Your task to perform on an android device: open the mobile data screen to see how much data has been used Image 0: 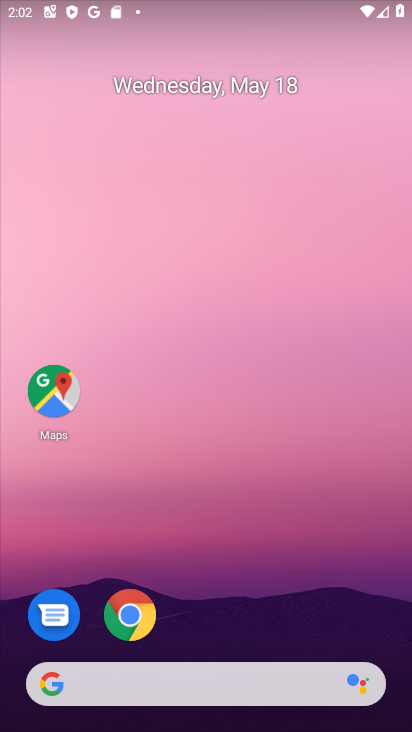
Step 0: drag from (266, 640) to (194, 212)
Your task to perform on an android device: open the mobile data screen to see how much data has been used Image 1: 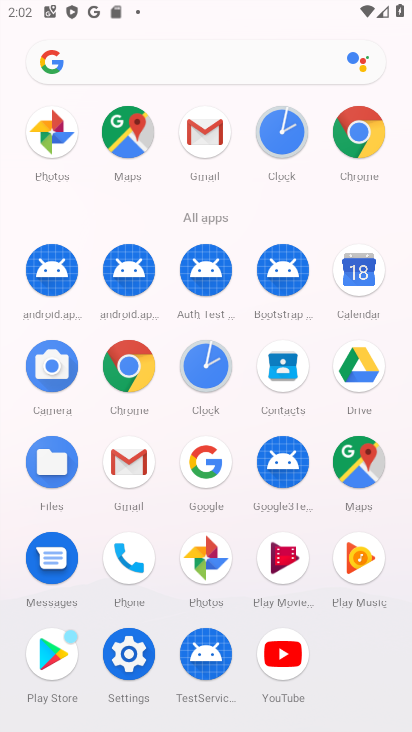
Step 1: click (127, 644)
Your task to perform on an android device: open the mobile data screen to see how much data has been used Image 2: 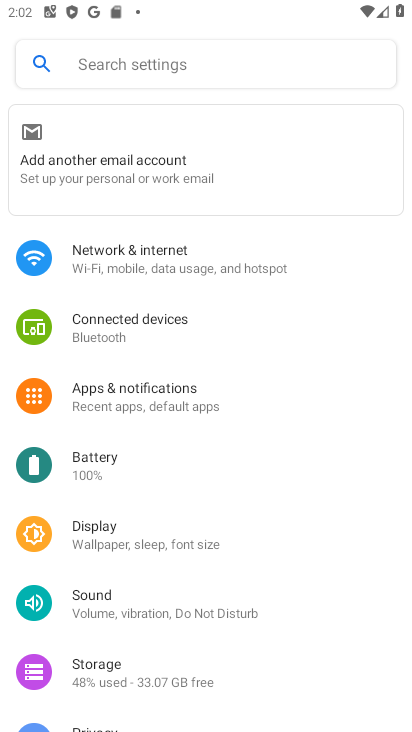
Step 2: click (303, 264)
Your task to perform on an android device: open the mobile data screen to see how much data has been used Image 3: 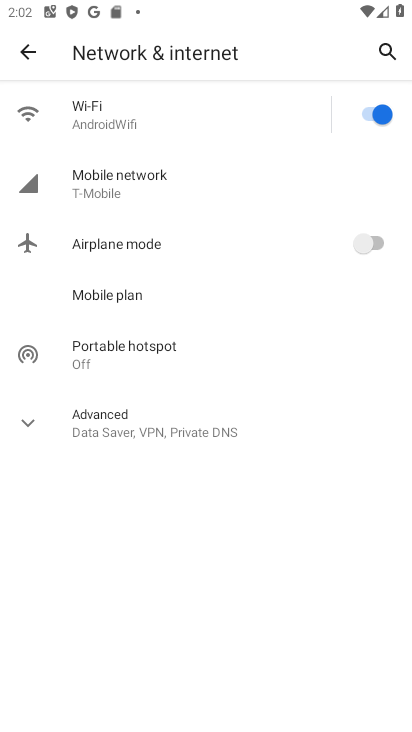
Step 3: click (230, 184)
Your task to perform on an android device: open the mobile data screen to see how much data has been used Image 4: 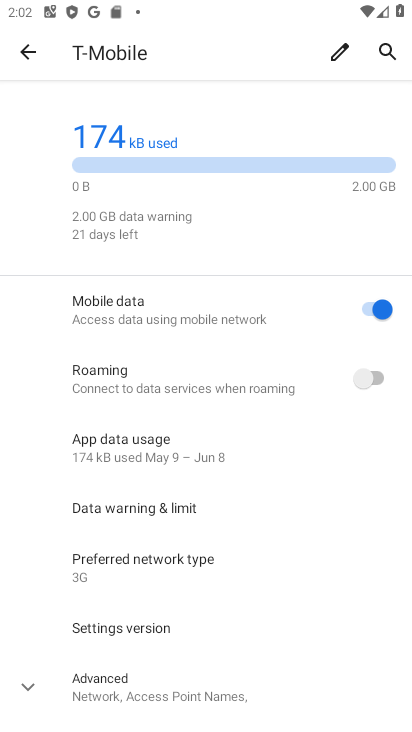
Step 4: task complete